Your task to perform on an android device: Do I have any events this weekend? Image 0: 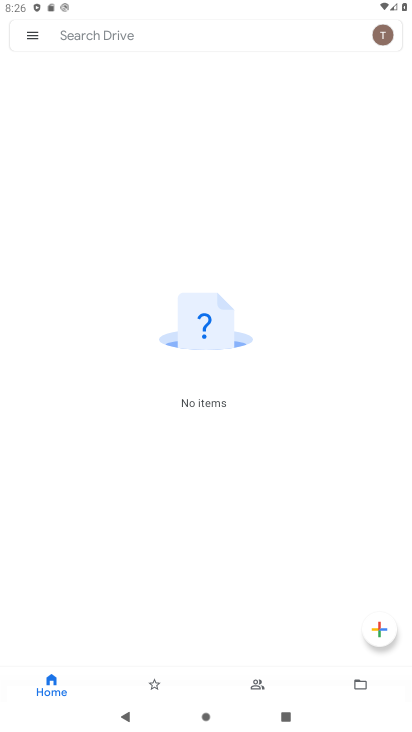
Step 0: press home button
Your task to perform on an android device: Do I have any events this weekend? Image 1: 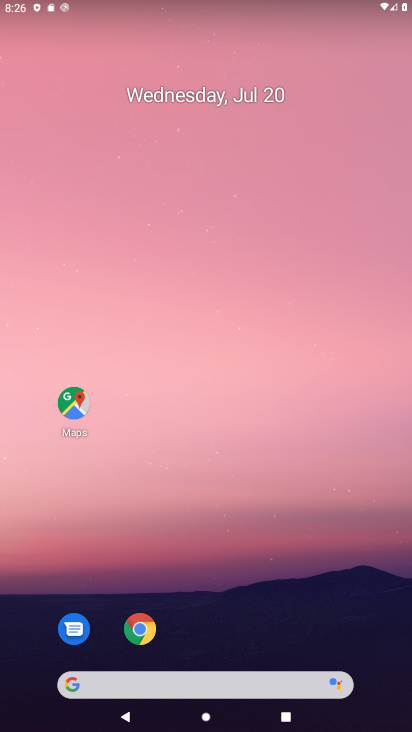
Step 1: drag from (209, 629) to (275, 25)
Your task to perform on an android device: Do I have any events this weekend? Image 2: 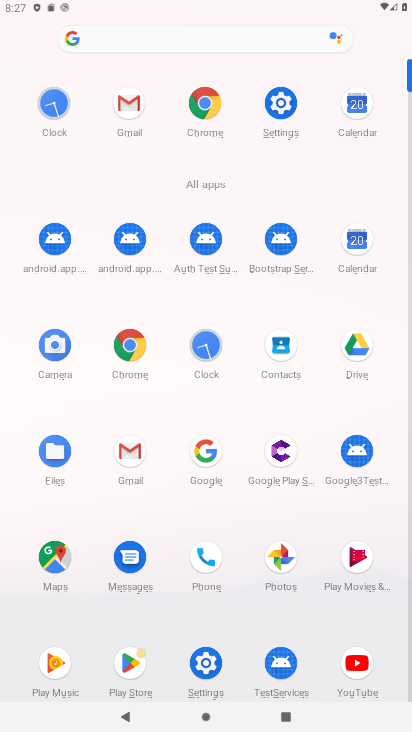
Step 2: click (355, 246)
Your task to perform on an android device: Do I have any events this weekend? Image 3: 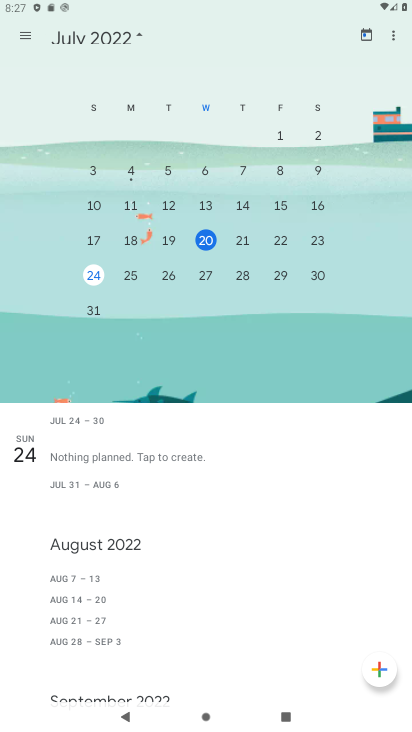
Step 3: click (310, 245)
Your task to perform on an android device: Do I have any events this weekend? Image 4: 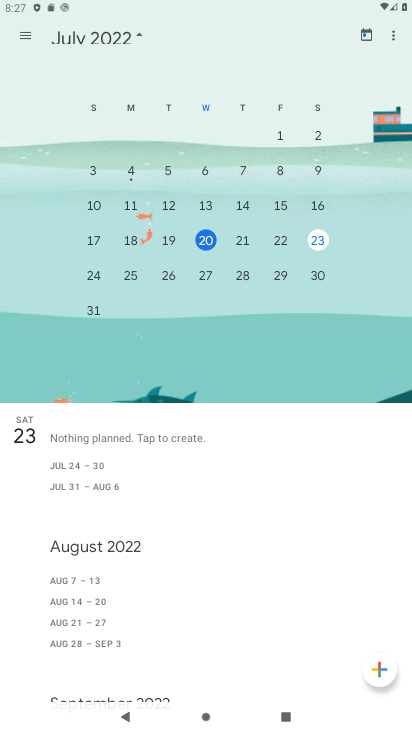
Step 4: task complete